Your task to perform on an android device: What's on my calendar tomorrow? Image 0: 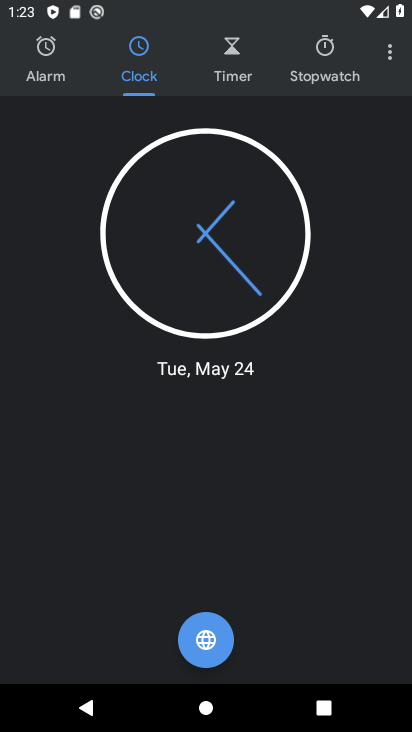
Step 0: press home button
Your task to perform on an android device: What's on my calendar tomorrow? Image 1: 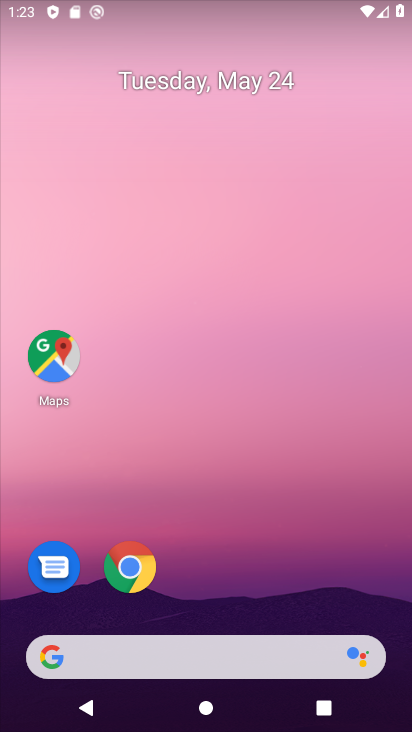
Step 1: drag from (234, 621) to (242, 82)
Your task to perform on an android device: What's on my calendar tomorrow? Image 2: 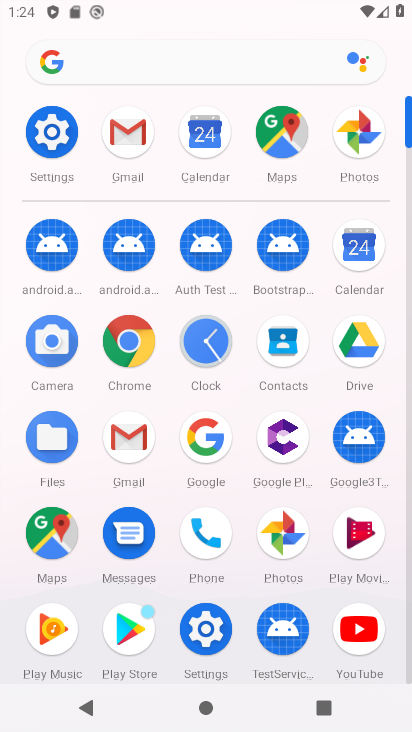
Step 2: click (368, 268)
Your task to perform on an android device: What's on my calendar tomorrow? Image 3: 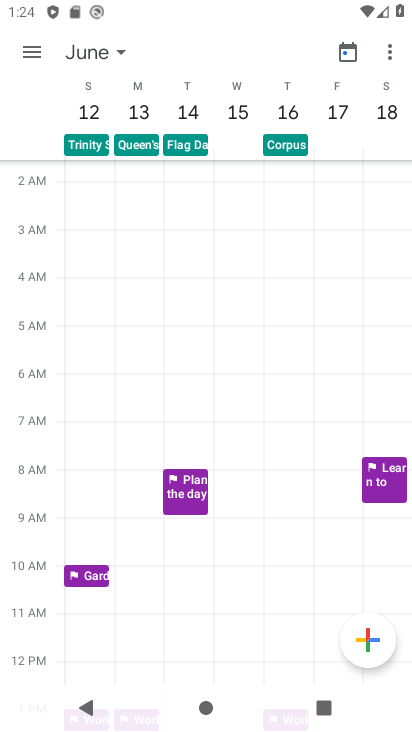
Step 3: click (35, 50)
Your task to perform on an android device: What's on my calendar tomorrow? Image 4: 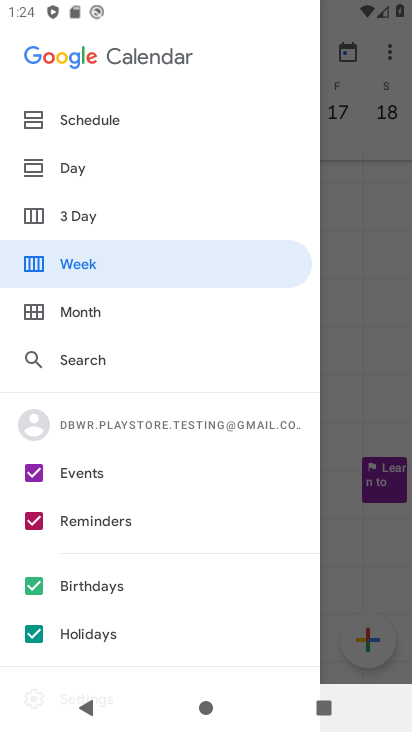
Step 4: click (383, 227)
Your task to perform on an android device: What's on my calendar tomorrow? Image 5: 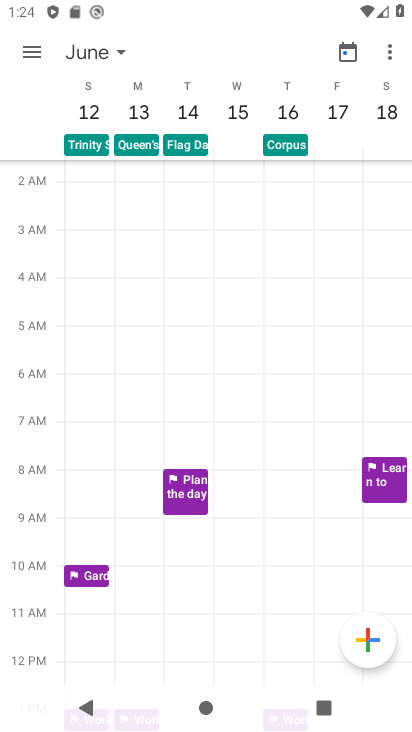
Step 5: drag from (117, 116) to (408, 92)
Your task to perform on an android device: What's on my calendar tomorrow? Image 6: 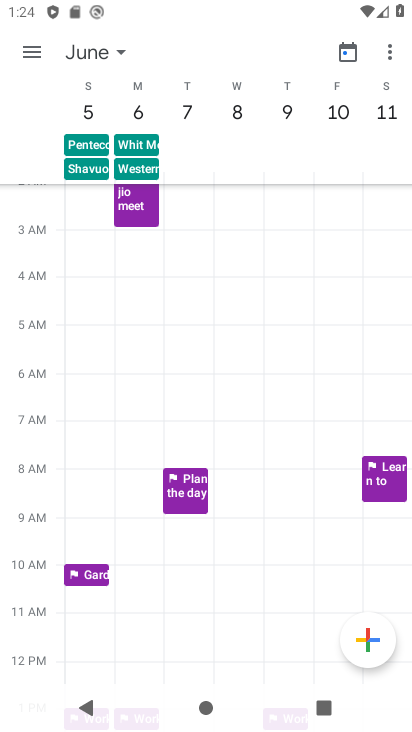
Step 6: drag from (82, 146) to (400, 122)
Your task to perform on an android device: What's on my calendar tomorrow? Image 7: 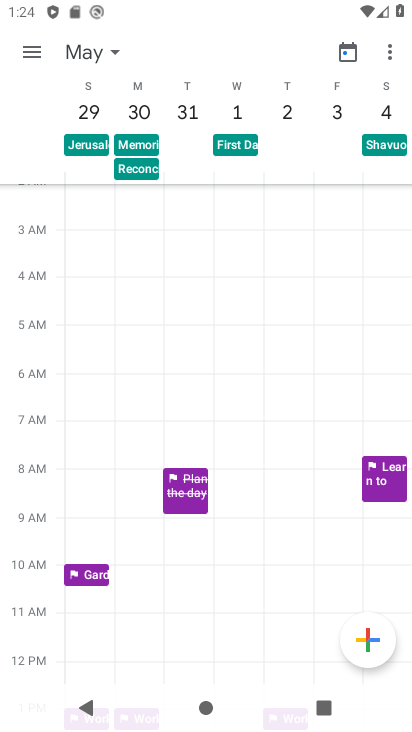
Step 7: drag from (132, 151) to (410, 166)
Your task to perform on an android device: What's on my calendar tomorrow? Image 8: 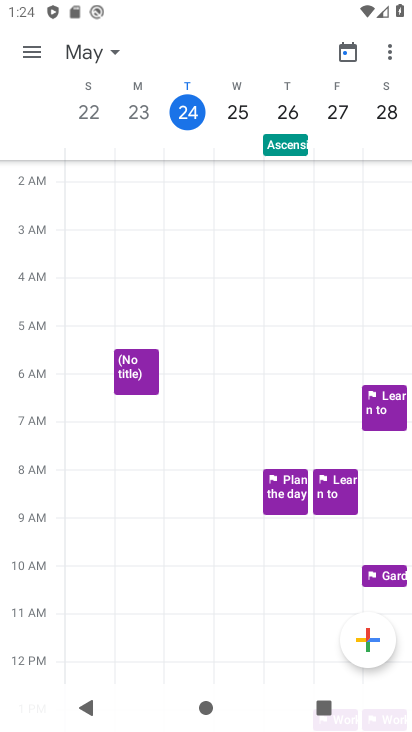
Step 8: drag from (109, 143) to (409, 159)
Your task to perform on an android device: What's on my calendar tomorrow? Image 9: 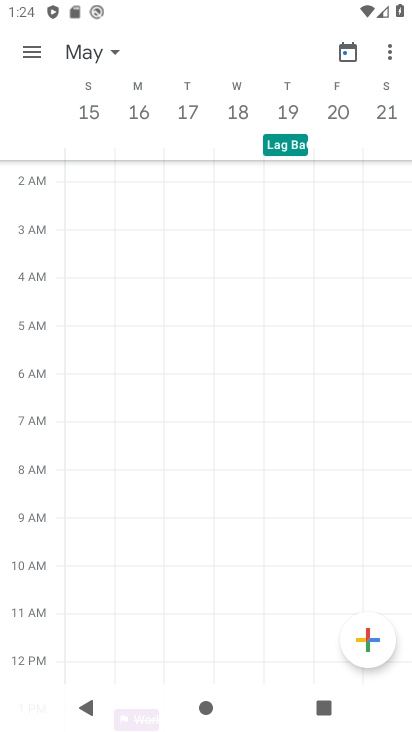
Step 9: drag from (115, 145) to (409, 135)
Your task to perform on an android device: What's on my calendar tomorrow? Image 10: 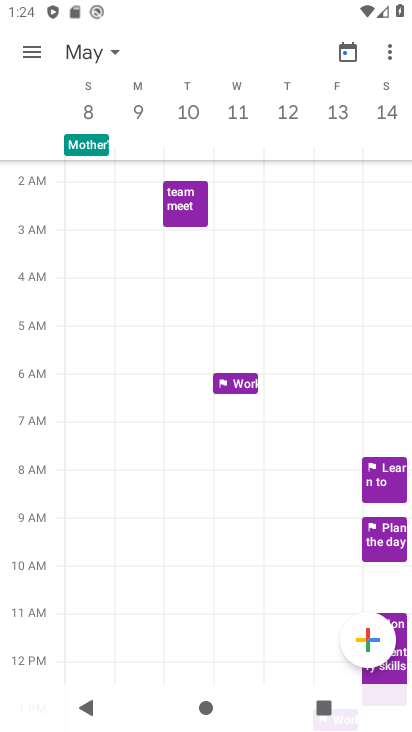
Step 10: drag from (290, 127) to (11, 88)
Your task to perform on an android device: What's on my calendar tomorrow? Image 11: 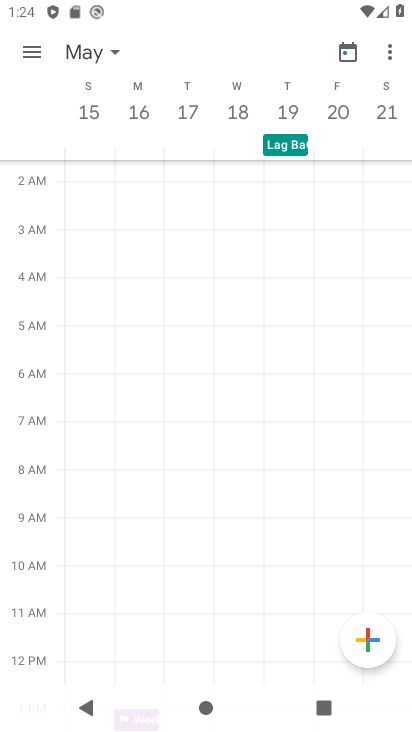
Step 11: drag from (370, 127) to (5, 72)
Your task to perform on an android device: What's on my calendar tomorrow? Image 12: 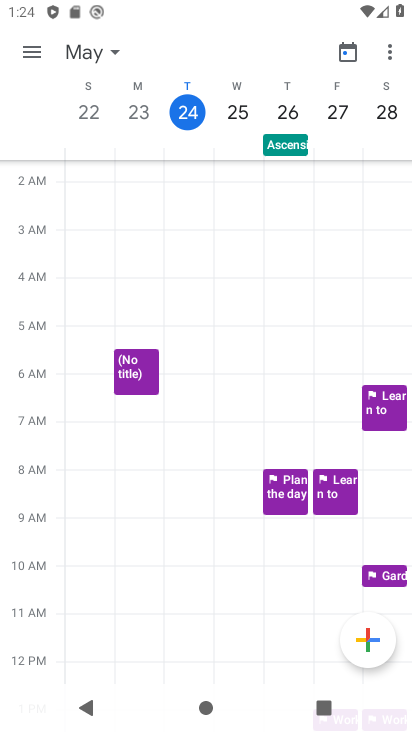
Step 12: click (18, 43)
Your task to perform on an android device: What's on my calendar tomorrow? Image 13: 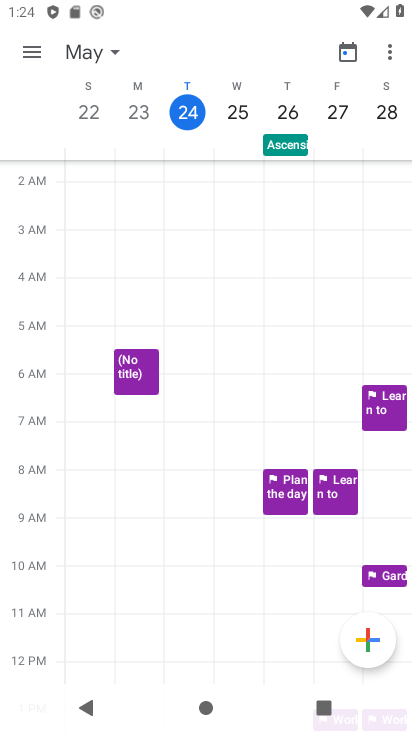
Step 13: click (35, 51)
Your task to perform on an android device: What's on my calendar tomorrow? Image 14: 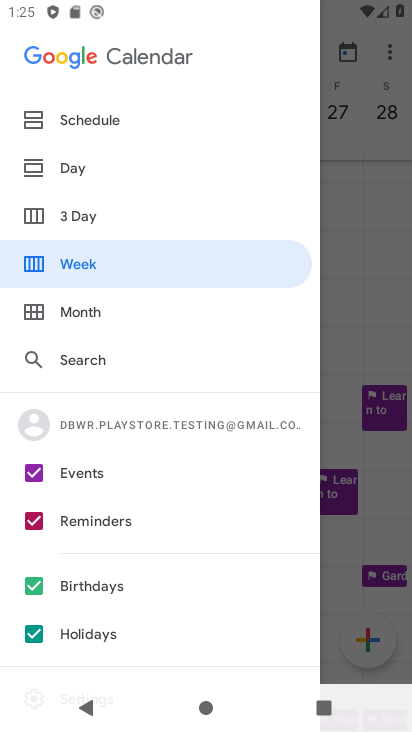
Step 14: click (98, 216)
Your task to perform on an android device: What's on my calendar tomorrow? Image 15: 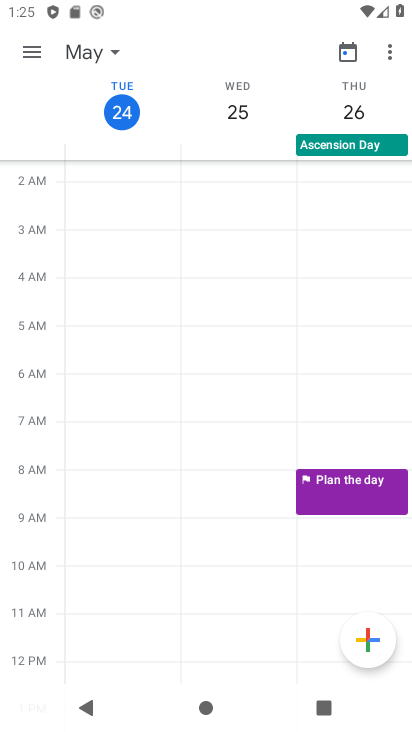
Step 15: task complete